Your task to perform on an android device: all mails in gmail Image 0: 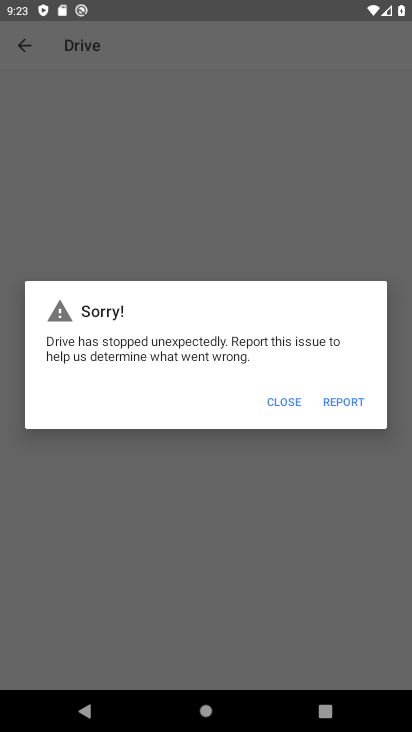
Step 0: click (277, 415)
Your task to perform on an android device: all mails in gmail Image 1: 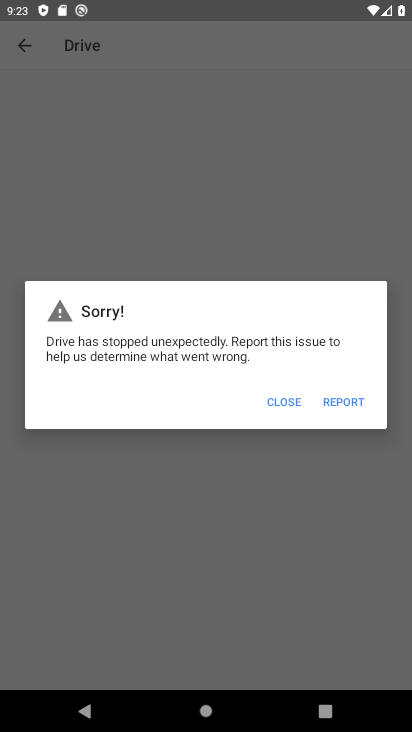
Step 1: click (277, 415)
Your task to perform on an android device: all mails in gmail Image 2: 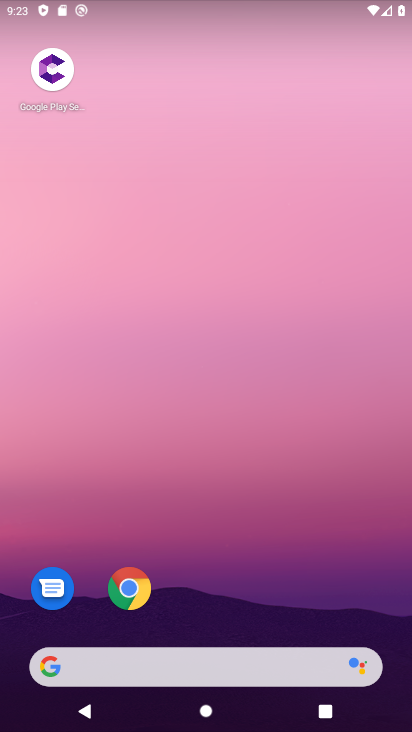
Step 2: drag from (224, 710) to (122, 120)
Your task to perform on an android device: all mails in gmail Image 3: 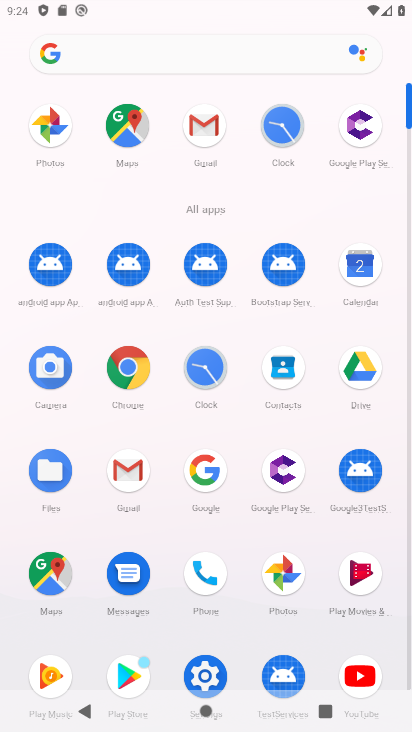
Step 3: click (130, 467)
Your task to perform on an android device: all mails in gmail Image 4: 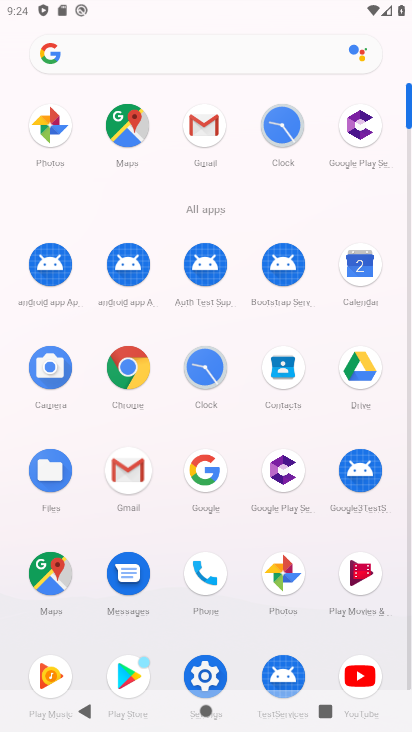
Step 4: click (128, 466)
Your task to perform on an android device: all mails in gmail Image 5: 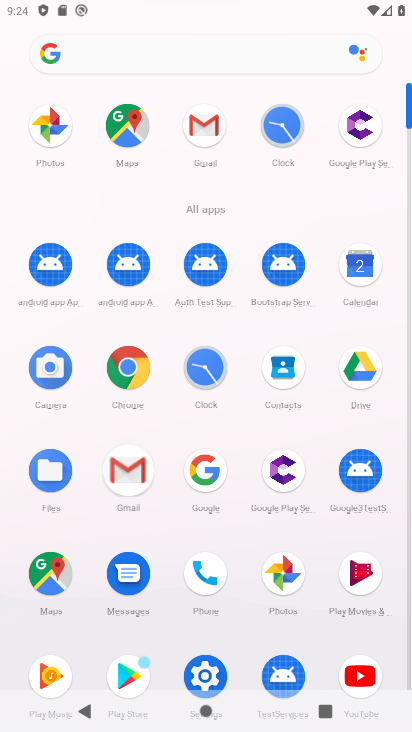
Step 5: click (127, 464)
Your task to perform on an android device: all mails in gmail Image 6: 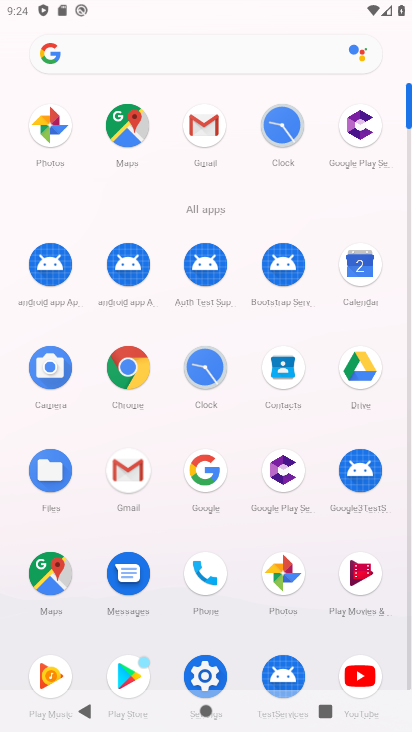
Step 6: click (127, 464)
Your task to perform on an android device: all mails in gmail Image 7: 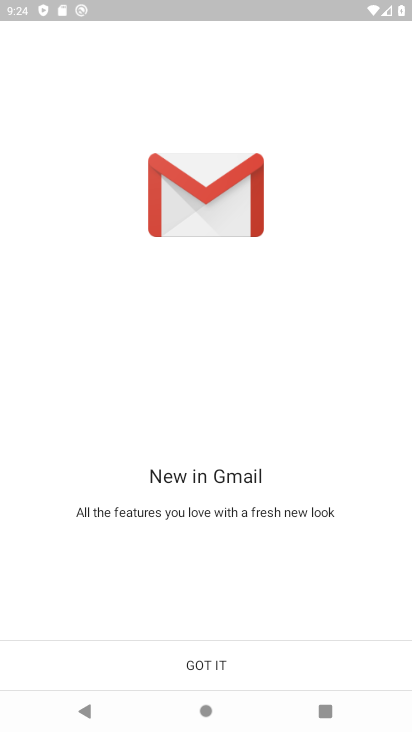
Step 7: click (199, 664)
Your task to perform on an android device: all mails in gmail Image 8: 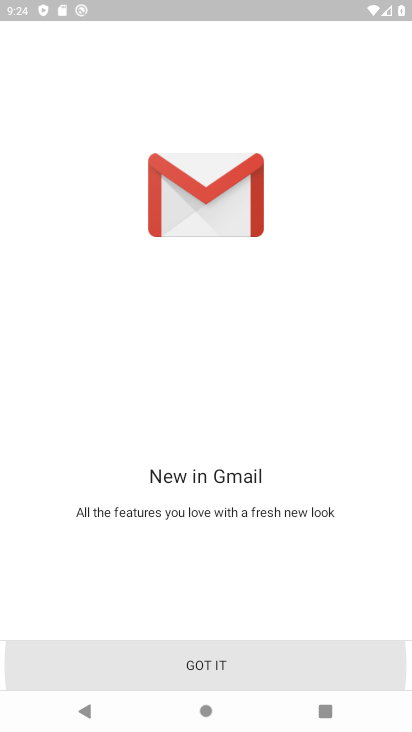
Step 8: click (199, 664)
Your task to perform on an android device: all mails in gmail Image 9: 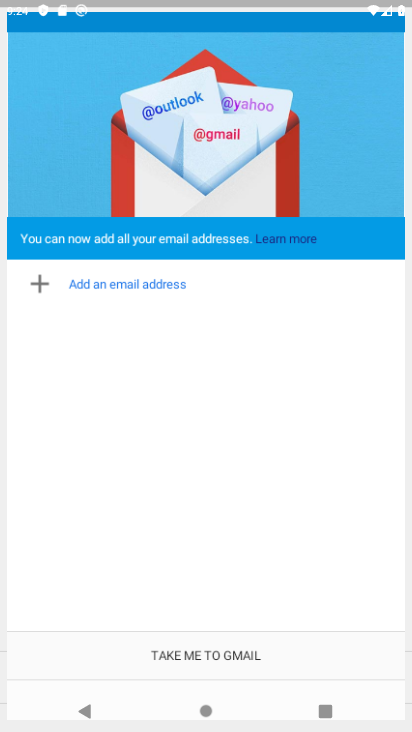
Step 9: click (199, 664)
Your task to perform on an android device: all mails in gmail Image 10: 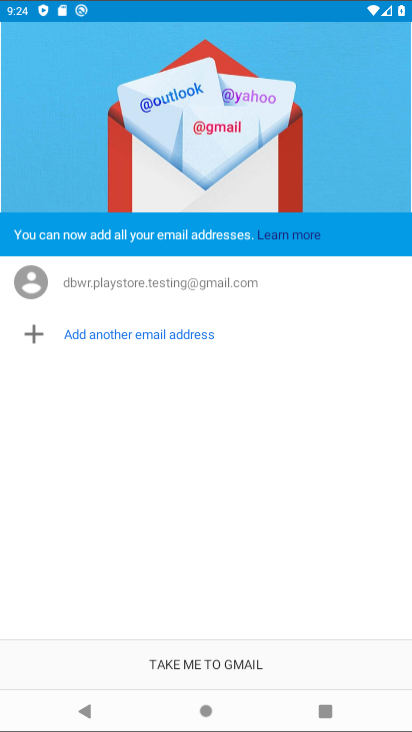
Step 10: click (198, 663)
Your task to perform on an android device: all mails in gmail Image 11: 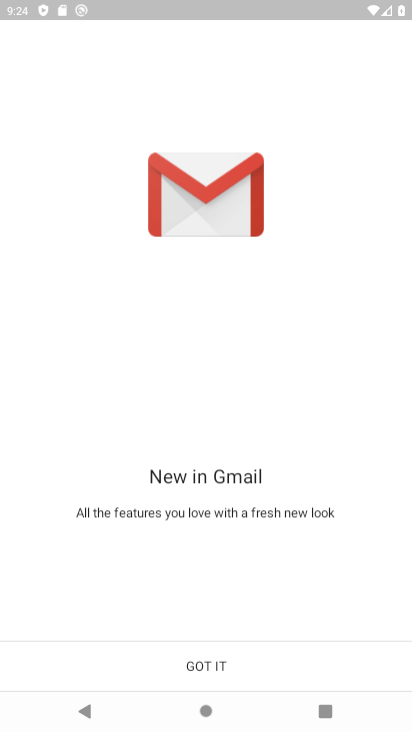
Step 11: click (199, 663)
Your task to perform on an android device: all mails in gmail Image 12: 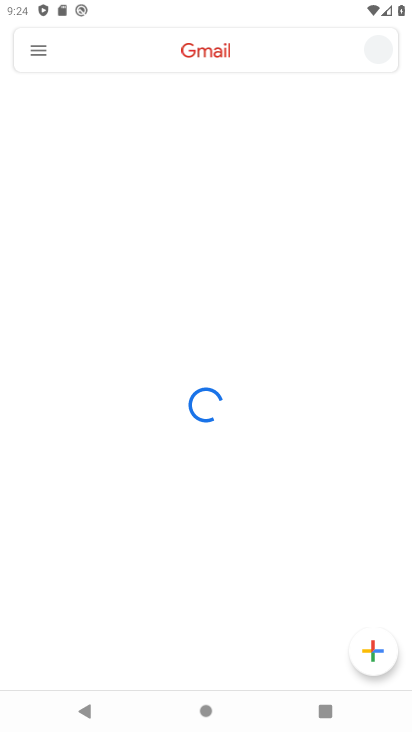
Step 12: task complete